Your task to perform on an android device: see sites visited before in the chrome app Image 0: 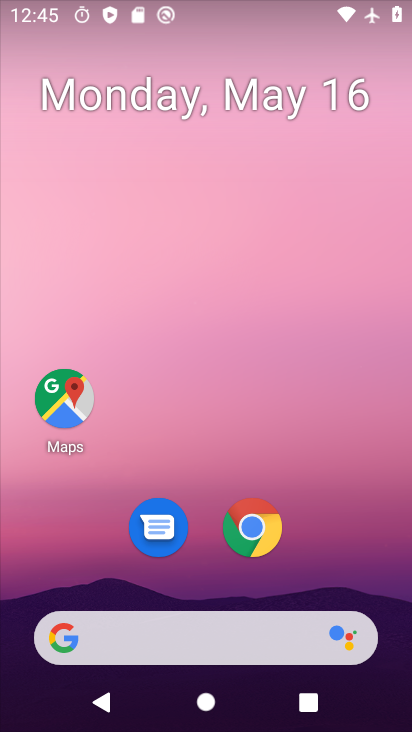
Step 0: click (260, 537)
Your task to perform on an android device: see sites visited before in the chrome app Image 1: 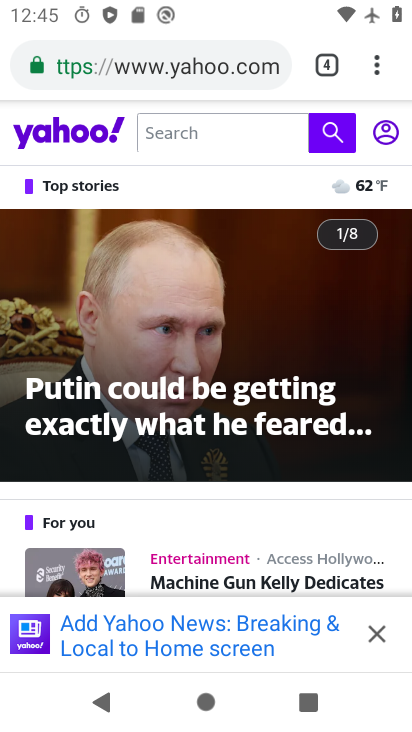
Step 1: task complete